Your task to perform on an android device: open a bookmark in the chrome app Image 0: 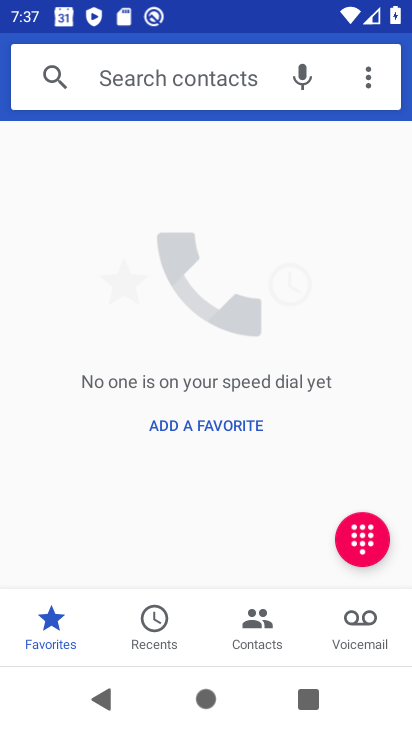
Step 0: press home button
Your task to perform on an android device: open a bookmark in the chrome app Image 1: 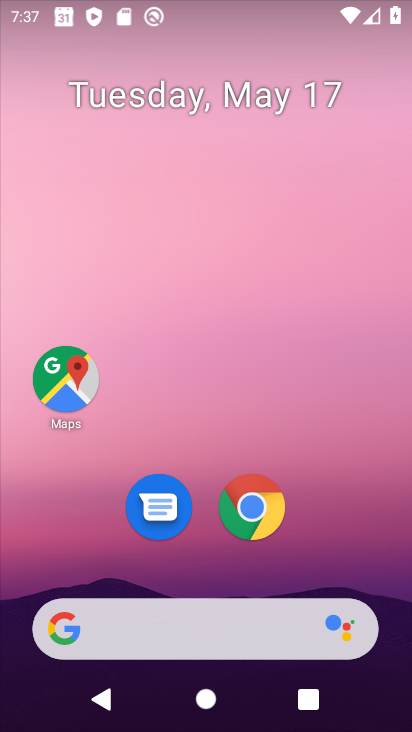
Step 1: click (260, 508)
Your task to perform on an android device: open a bookmark in the chrome app Image 2: 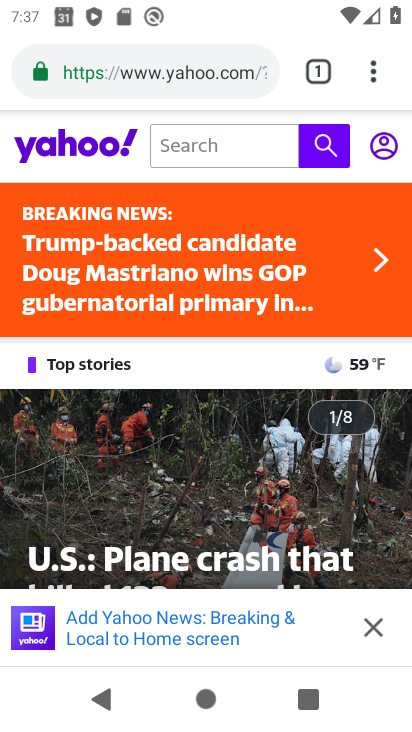
Step 2: click (371, 69)
Your task to perform on an android device: open a bookmark in the chrome app Image 3: 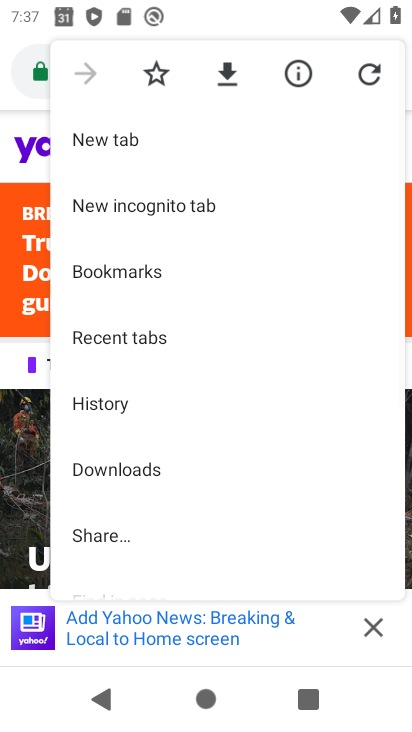
Step 3: click (137, 265)
Your task to perform on an android device: open a bookmark in the chrome app Image 4: 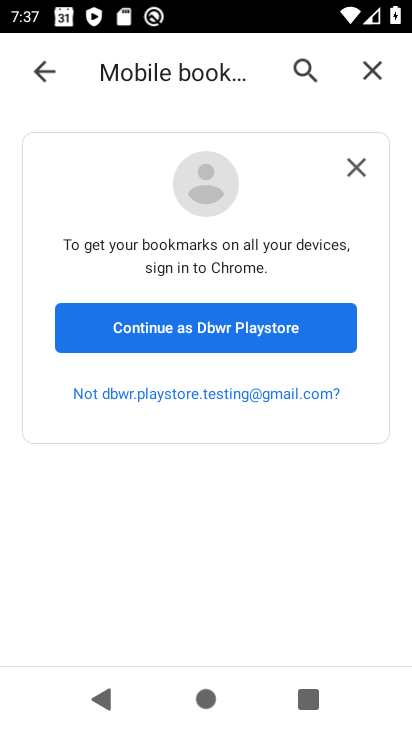
Step 4: click (165, 319)
Your task to perform on an android device: open a bookmark in the chrome app Image 5: 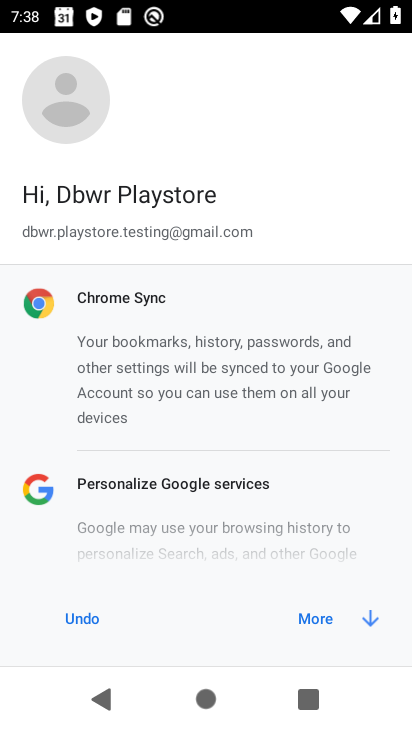
Step 5: click (298, 623)
Your task to perform on an android device: open a bookmark in the chrome app Image 6: 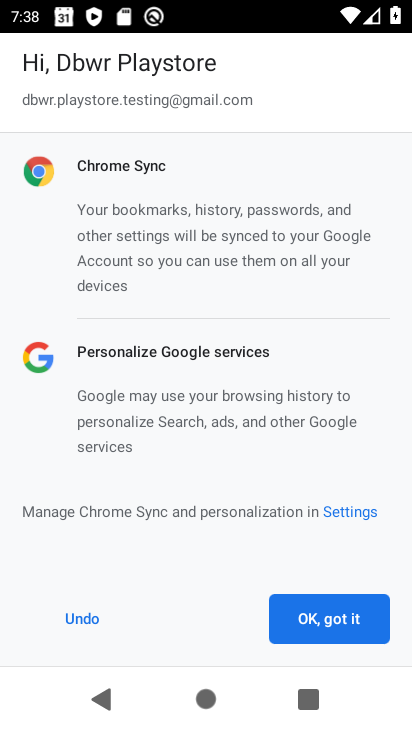
Step 6: click (296, 617)
Your task to perform on an android device: open a bookmark in the chrome app Image 7: 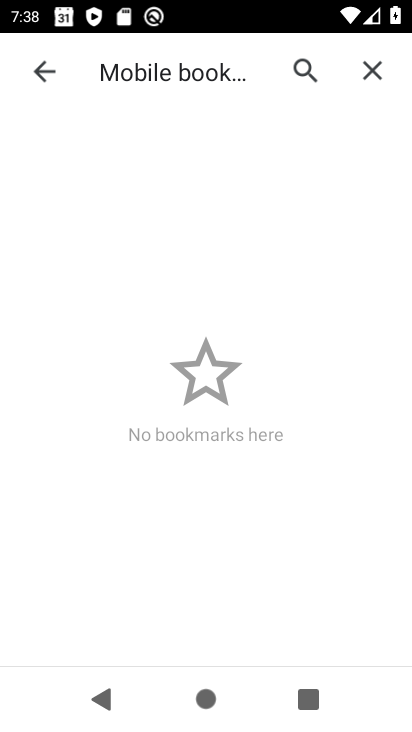
Step 7: drag from (233, 488) to (265, 148)
Your task to perform on an android device: open a bookmark in the chrome app Image 8: 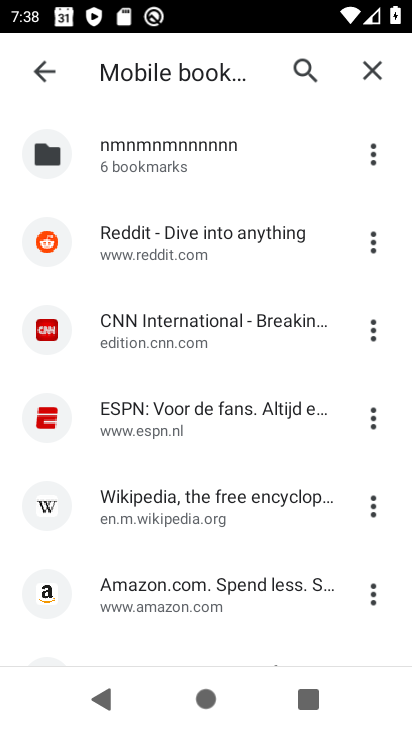
Step 8: click (157, 324)
Your task to perform on an android device: open a bookmark in the chrome app Image 9: 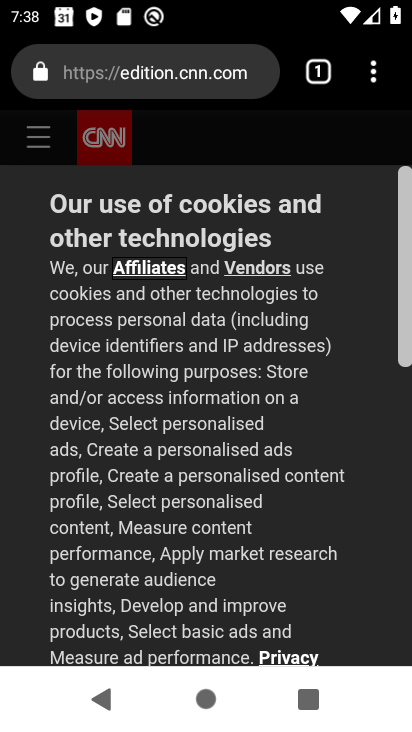
Step 9: task complete